Your task to perform on an android device: Open the web browser Image 0: 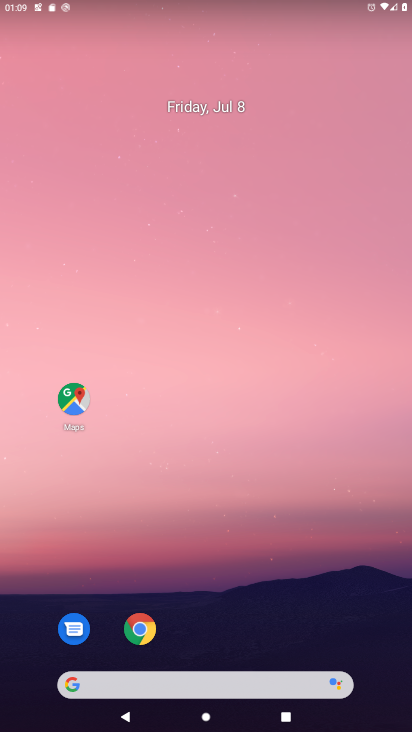
Step 0: click (143, 625)
Your task to perform on an android device: Open the web browser Image 1: 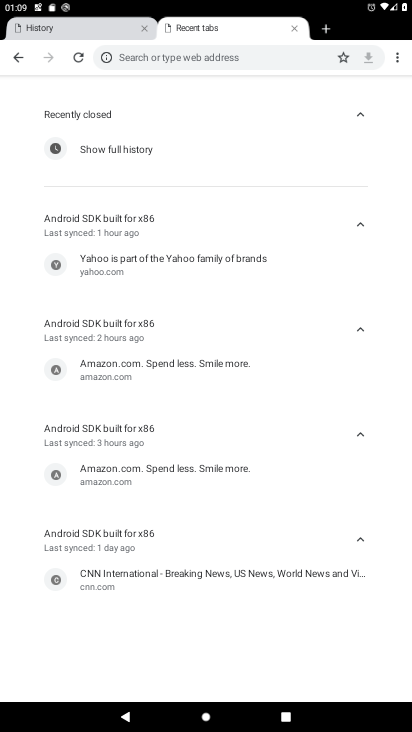
Step 1: task complete